Your task to perform on an android device: When is my next appointment? Image 0: 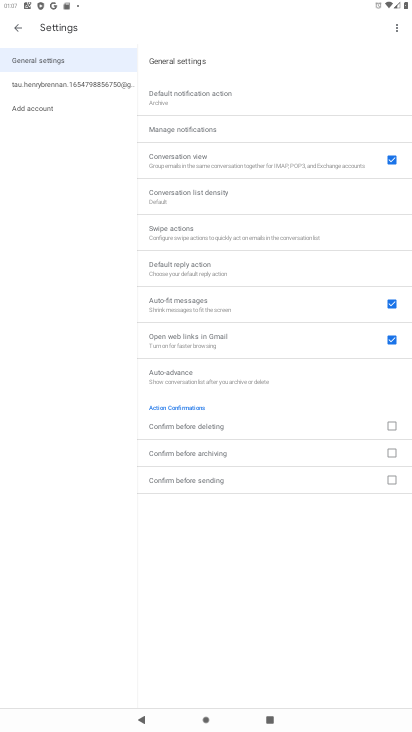
Step 0: drag from (276, 595) to (292, 511)
Your task to perform on an android device: When is my next appointment? Image 1: 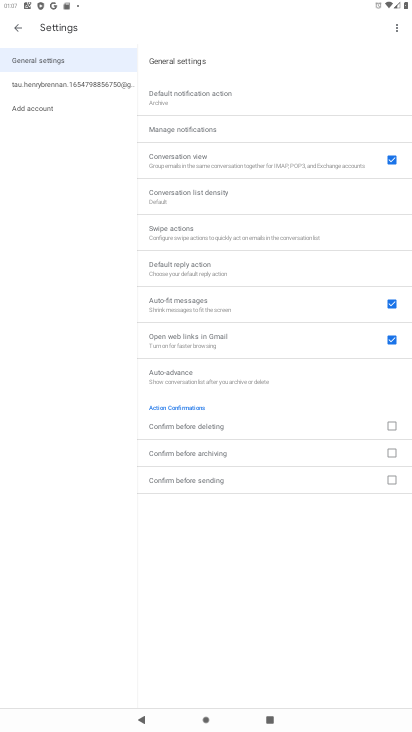
Step 1: press home button
Your task to perform on an android device: When is my next appointment? Image 2: 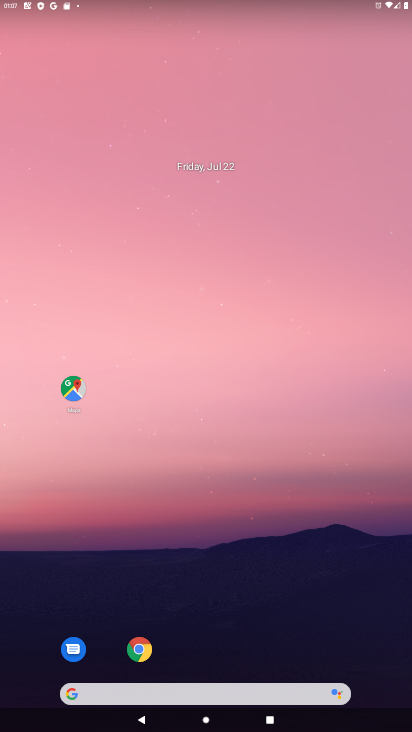
Step 2: drag from (249, 643) to (224, 90)
Your task to perform on an android device: When is my next appointment? Image 3: 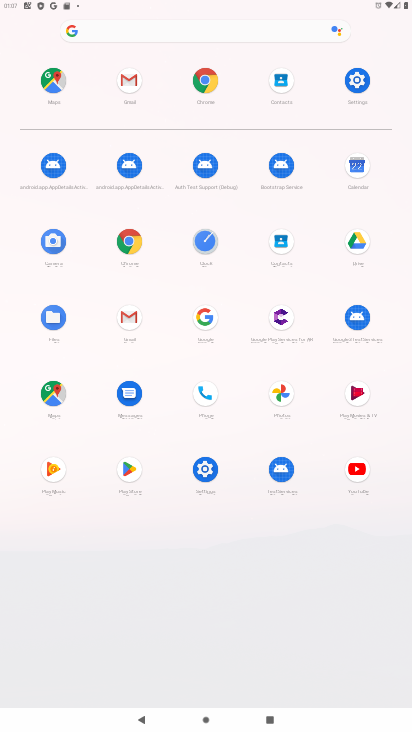
Step 3: click (359, 164)
Your task to perform on an android device: When is my next appointment? Image 4: 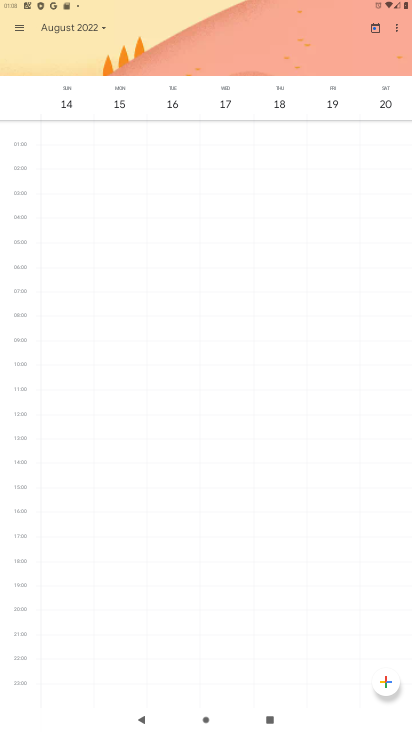
Step 4: click (54, 26)
Your task to perform on an android device: When is my next appointment? Image 5: 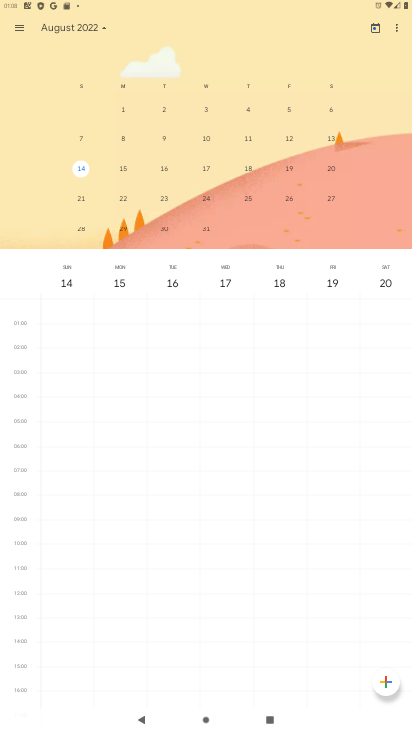
Step 5: drag from (82, 163) to (381, 158)
Your task to perform on an android device: When is my next appointment? Image 6: 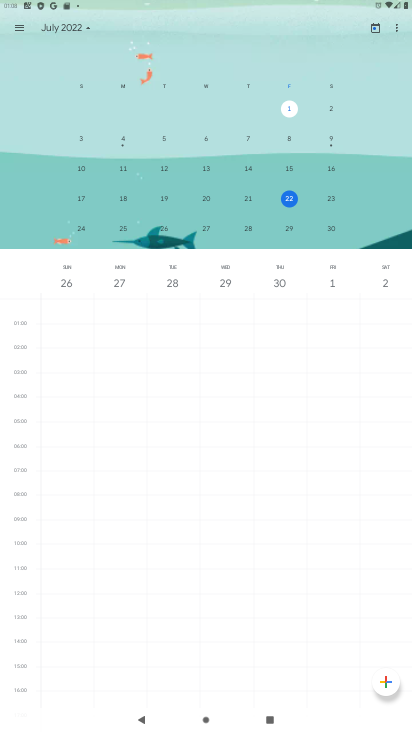
Step 6: click (288, 198)
Your task to perform on an android device: When is my next appointment? Image 7: 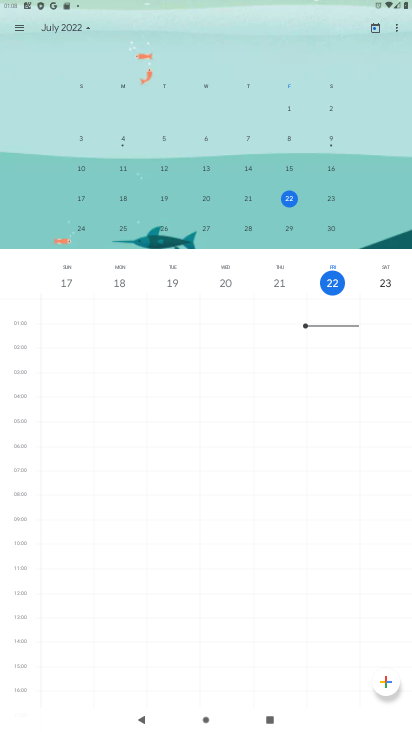
Step 7: task complete